Your task to perform on an android device: Go to Android settings Image 0: 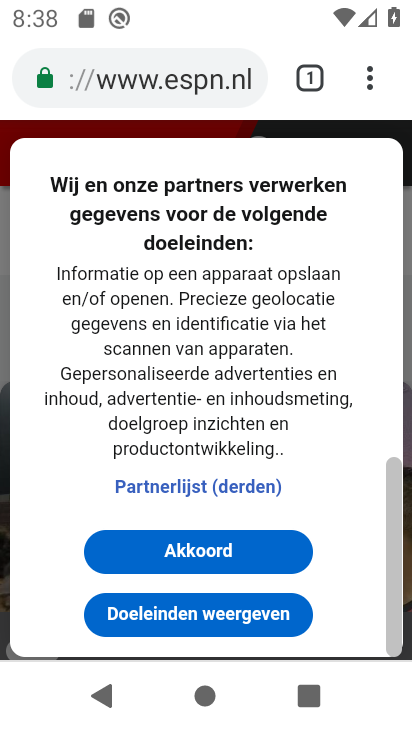
Step 0: press home button
Your task to perform on an android device: Go to Android settings Image 1: 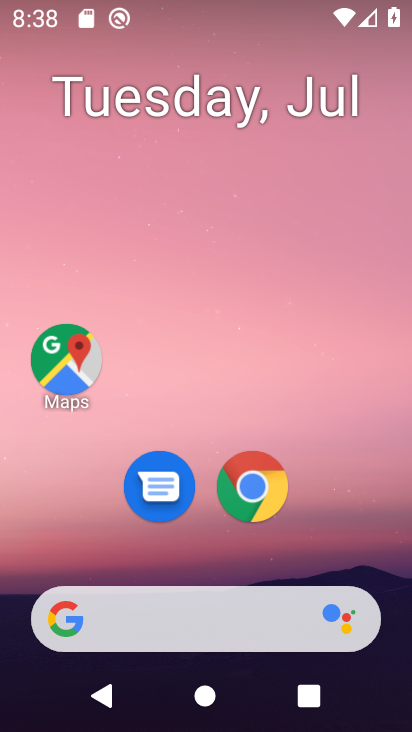
Step 1: drag from (176, 591) to (265, 4)
Your task to perform on an android device: Go to Android settings Image 2: 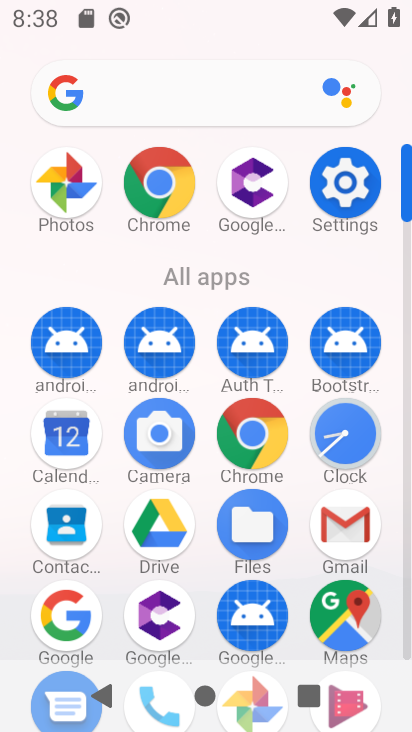
Step 2: click (351, 189)
Your task to perform on an android device: Go to Android settings Image 3: 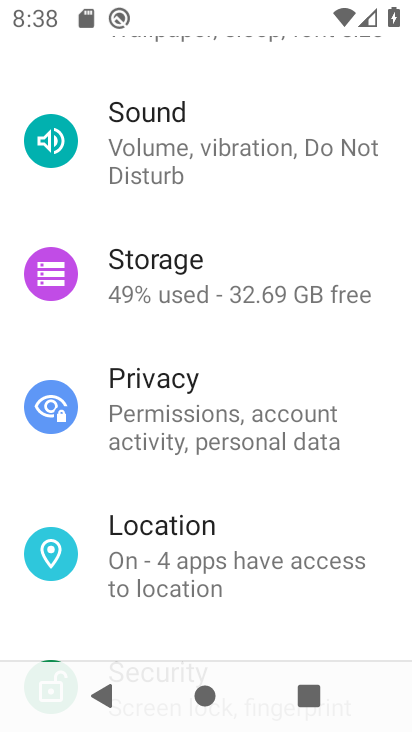
Step 3: drag from (235, 501) to (286, 80)
Your task to perform on an android device: Go to Android settings Image 4: 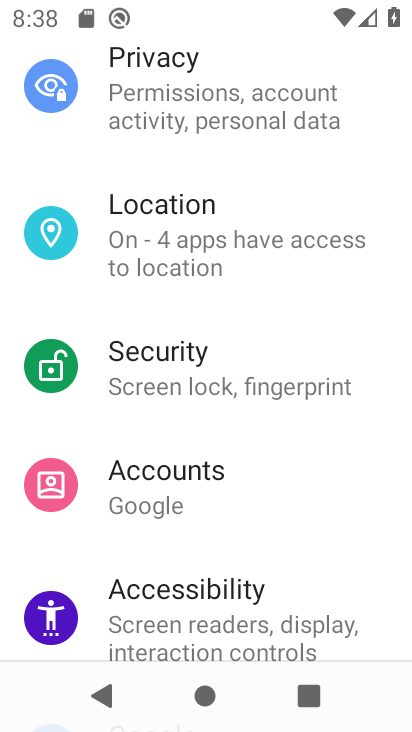
Step 4: drag from (238, 588) to (327, 141)
Your task to perform on an android device: Go to Android settings Image 5: 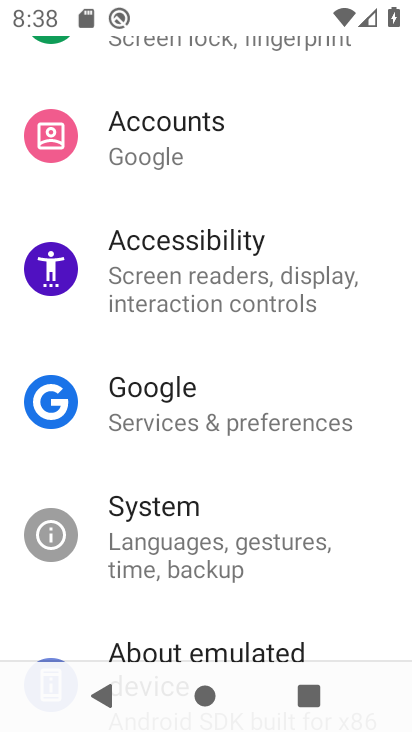
Step 5: drag from (225, 563) to (249, 204)
Your task to perform on an android device: Go to Android settings Image 6: 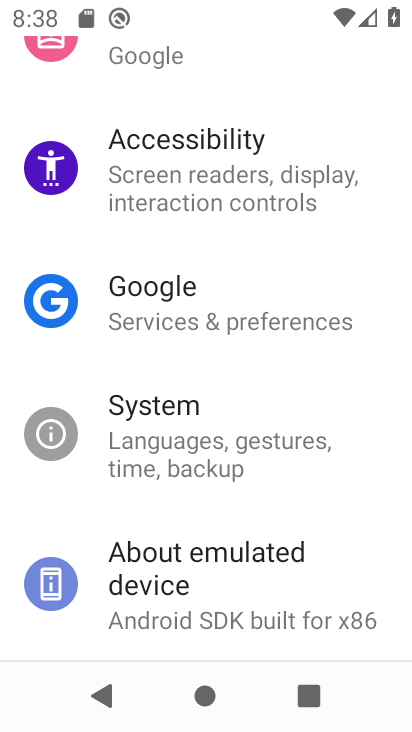
Step 6: drag from (157, 455) to (236, 133)
Your task to perform on an android device: Go to Android settings Image 7: 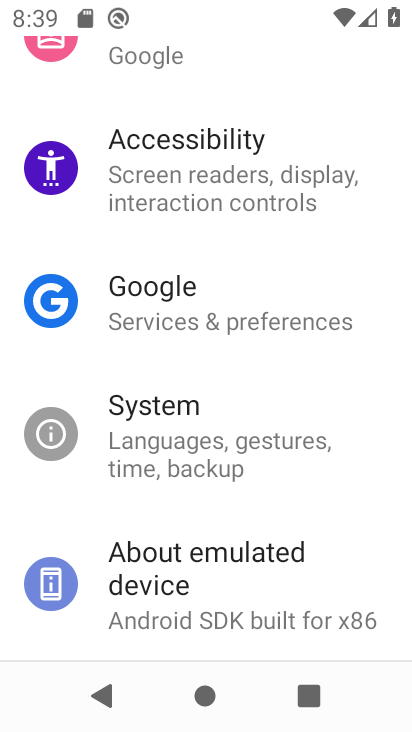
Step 7: drag from (224, 506) to (261, 171)
Your task to perform on an android device: Go to Android settings Image 8: 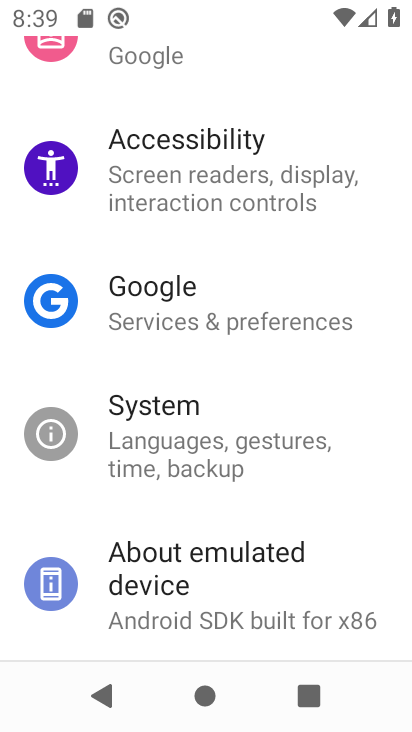
Step 8: click (218, 562)
Your task to perform on an android device: Go to Android settings Image 9: 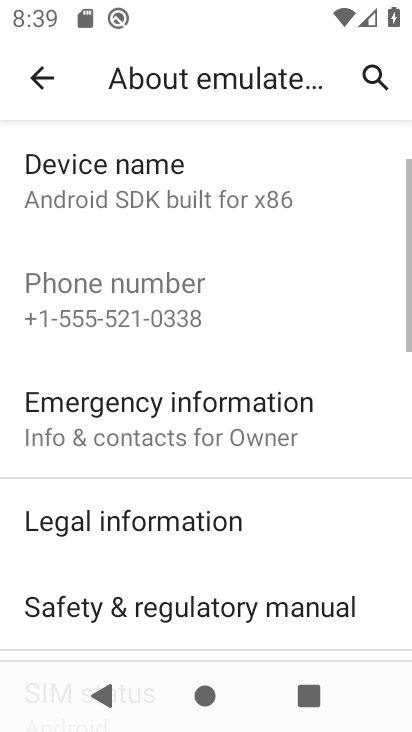
Step 9: drag from (195, 574) to (234, 339)
Your task to perform on an android device: Go to Android settings Image 10: 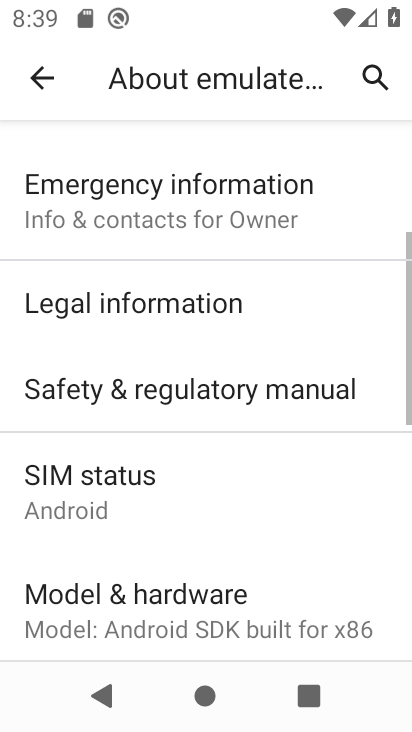
Step 10: drag from (191, 497) to (231, 298)
Your task to perform on an android device: Go to Android settings Image 11: 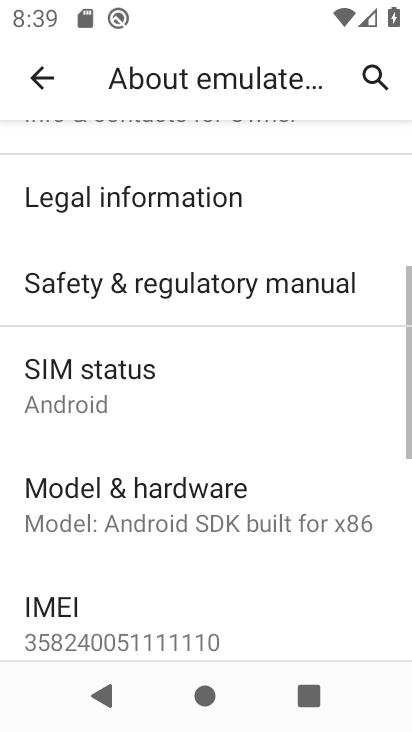
Step 11: drag from (190, 601) to (272, 224)
Your task to perform on an android device: Go to Android settings Image 12: 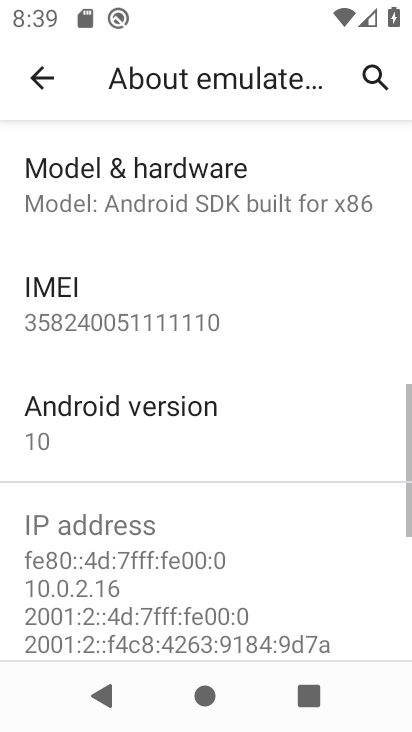
Step 12: click (189, 447)
Your task to perform on an android device: Go to Android settings Image 13: 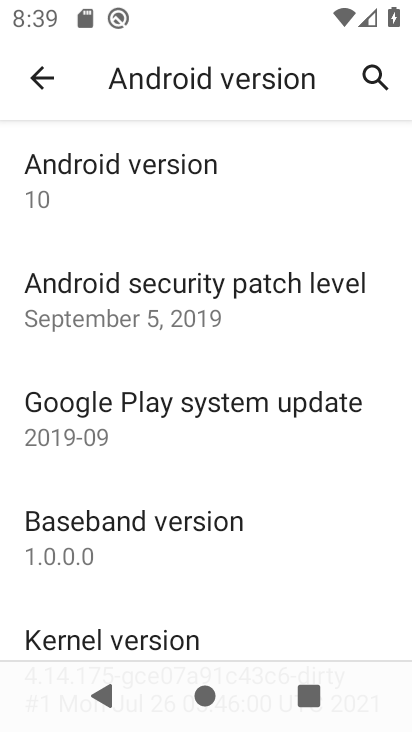
Step 13: click (205, 200)
Your task to perform on an android device: Go to Android settings Image 14: 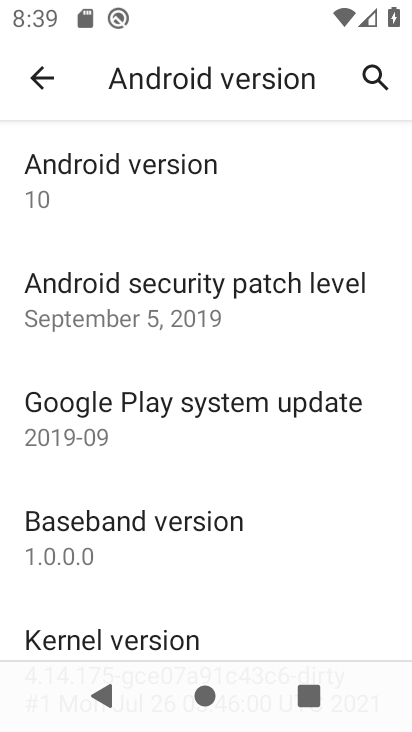
Step 14: task complete